Your task to perform on an android device: change alarm snooze length Image 0: 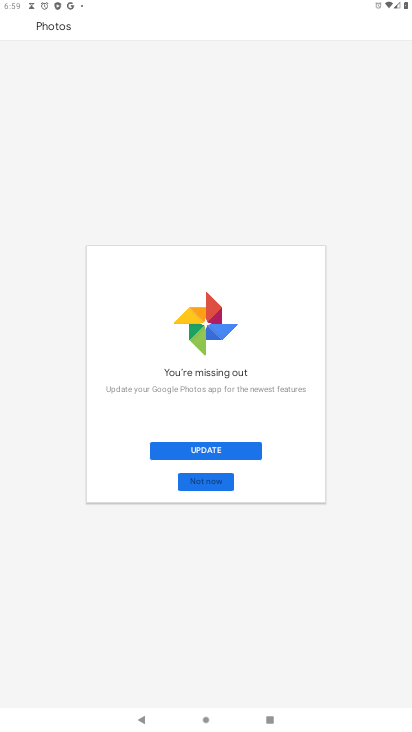
Step 0: press home button
Your task to perform on an android device: change alarm snooze length Image 1: 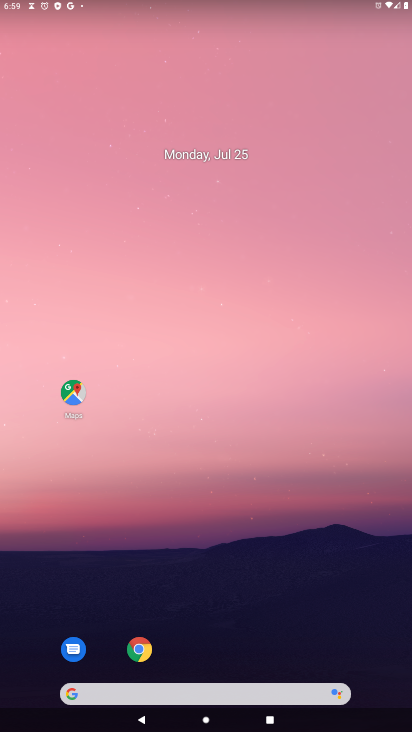
Step 1: drag from (265, 648) to (323, 145)
Your task to perform on an android device: change alarm snooze length Image 2: 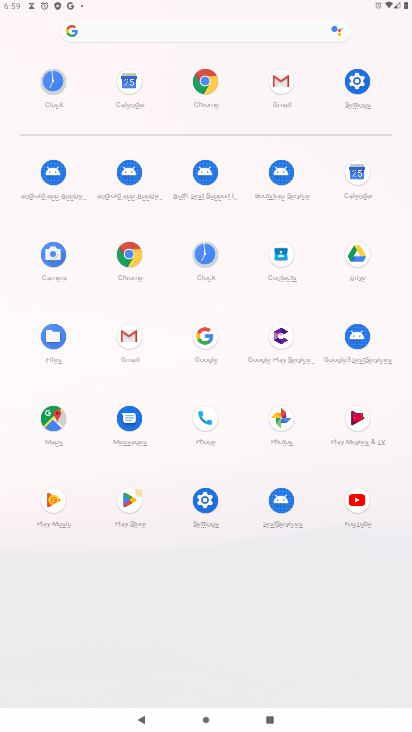
Step 2: click (210, 250)
Your task to perform on an android device: change alarm snooze length Image 3: 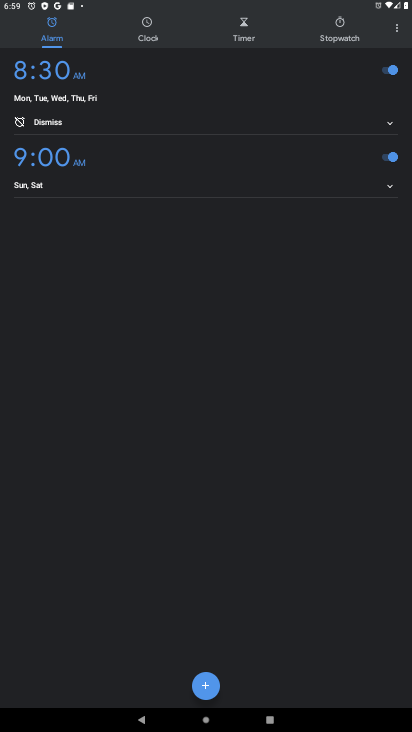
Step 3: click (395, 24)
Your task to perform on an android device: change alarm snooze length Image 4: 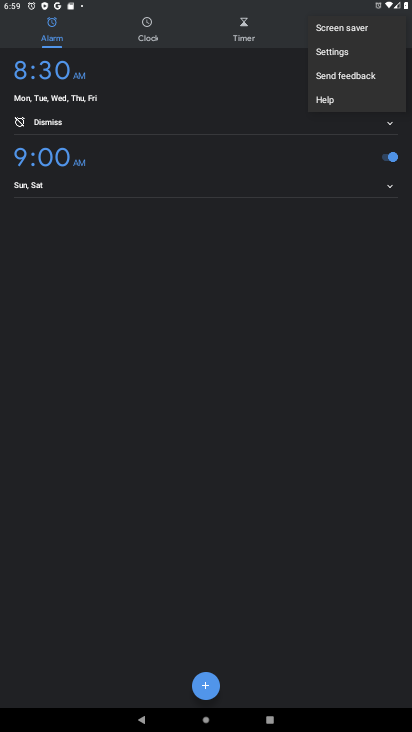
Step 4: click (357, 50)
Your task to perform on an android device: change alarm snooze length Image 5: 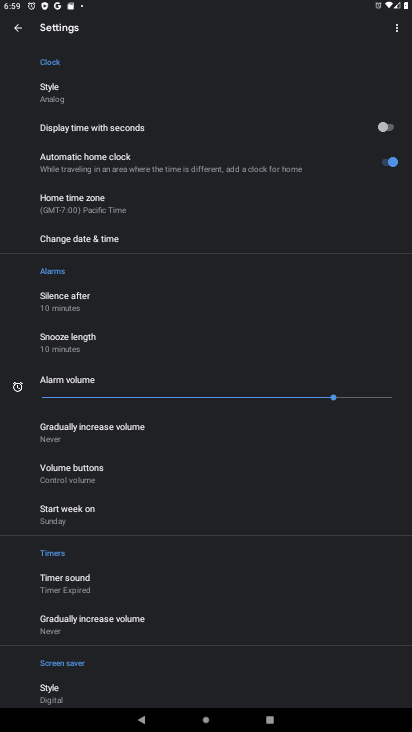
Step 5: click (109, 347)
Your task to perform on an android device: change alarm snooze length Image 6: 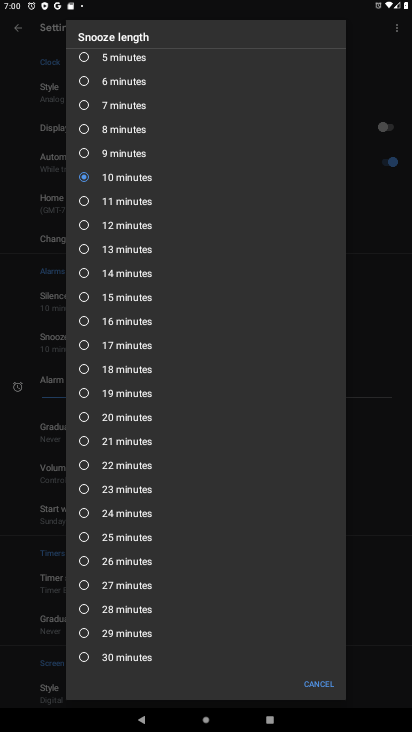
Step 6: click (93, 153)
Your task to perform on an android device: change alarm snooze length Image 7: 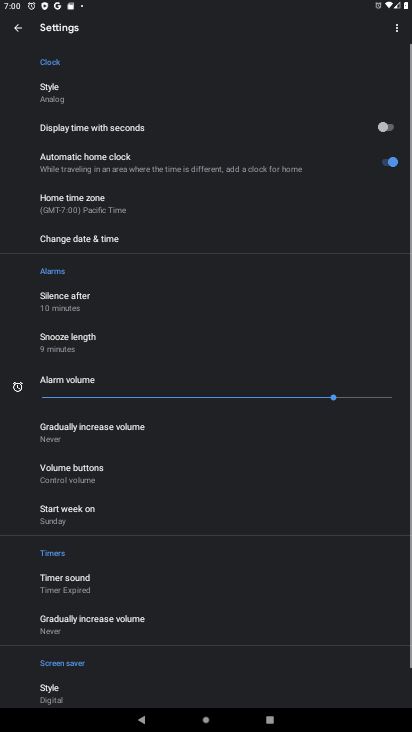
Step 7: task complete